Your task to perform on an android device: Look up the best rated gaming chair on Best Buy Image 0: 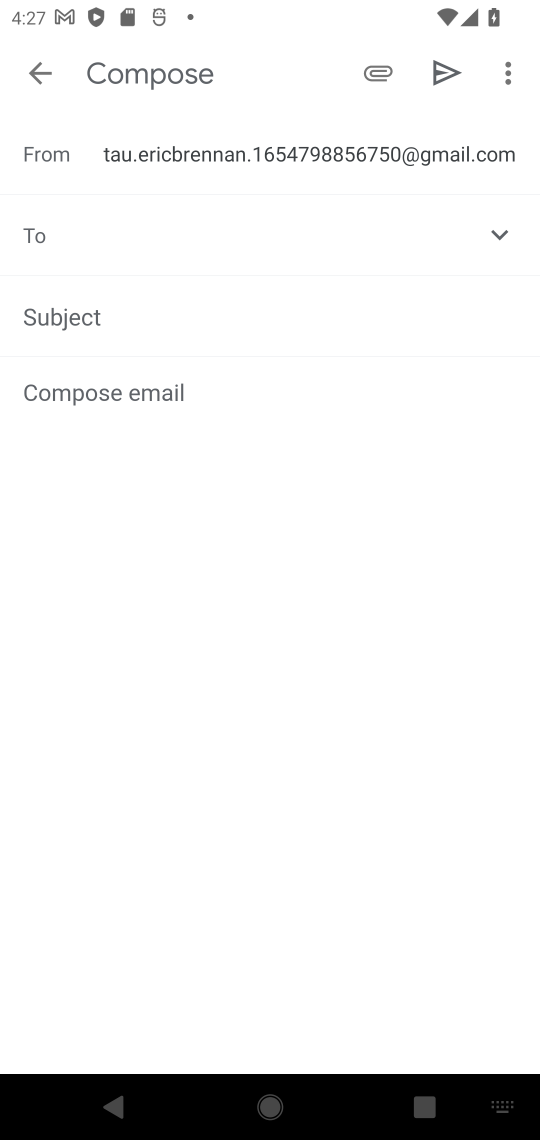
Step 0: press home button
Your task to perform on an android device: Look up the best rated gaming chair on Best Buy Image 1: 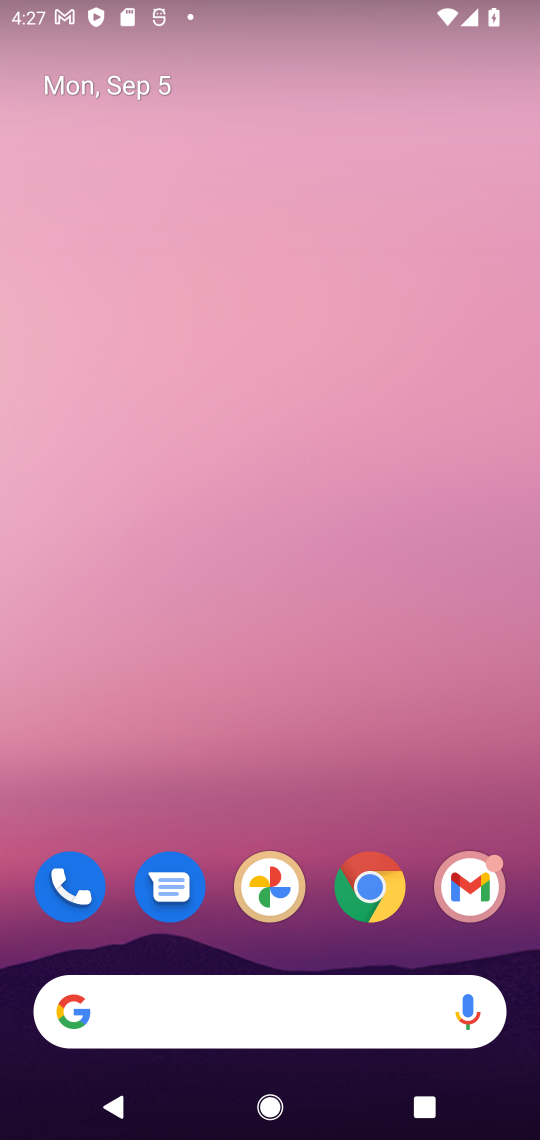
Step 1: drag from (317, 827) to (231, 153)
Your task to perform on an android device: Look up the best rated gaming chair on Best Buy Image 2: 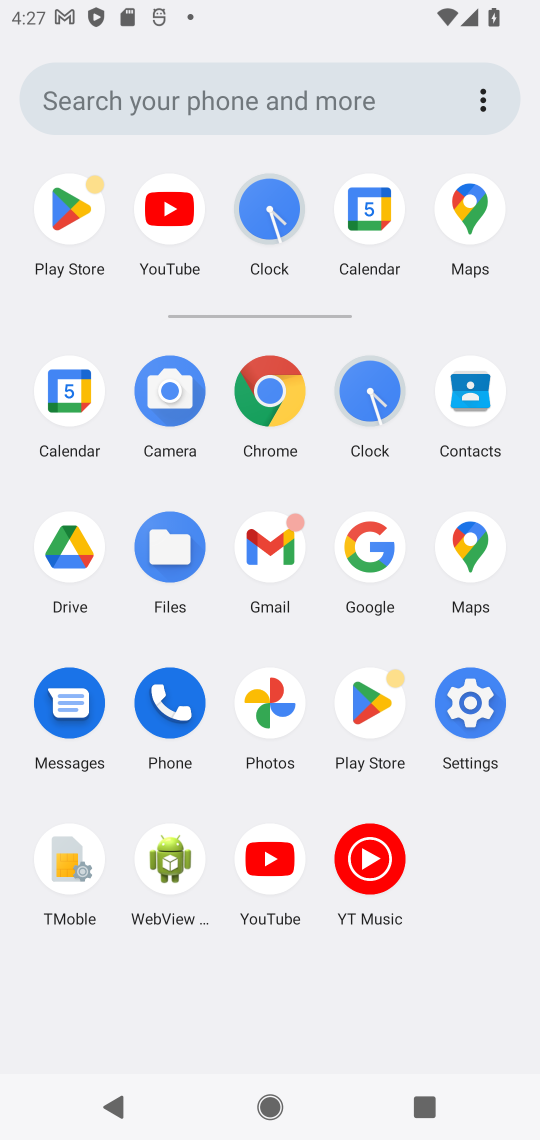
Step 2: click (268, 393)
Your task to perform on an android device: Look up the best rated gaming chair on Best Buy Image 3: 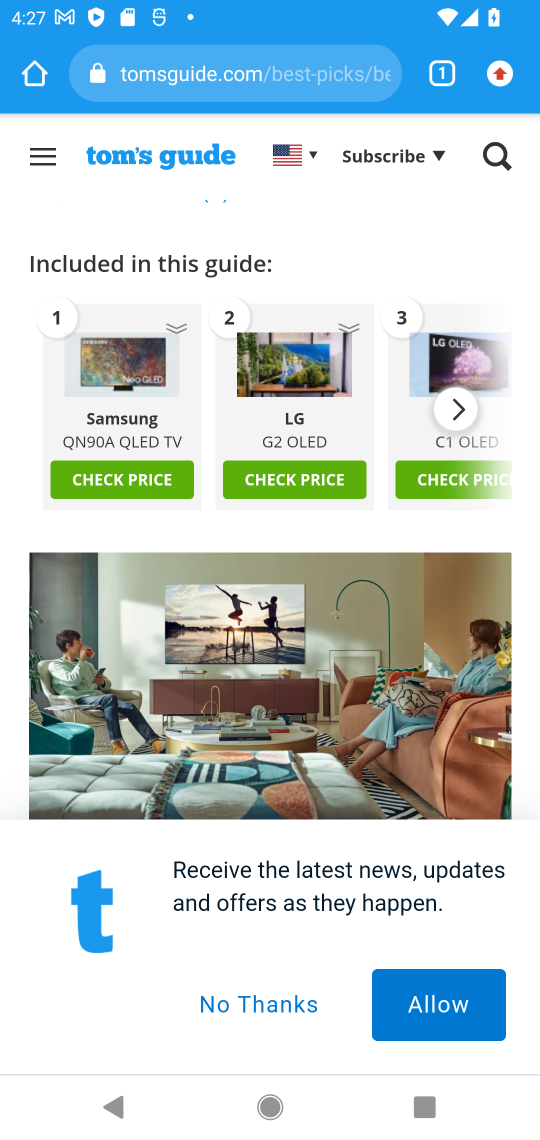
Step 3: drag from (342, 293) to (301, 67)
Your task to perform on an android device: Look up the best rated gaming chair on Best Buy Image 4: 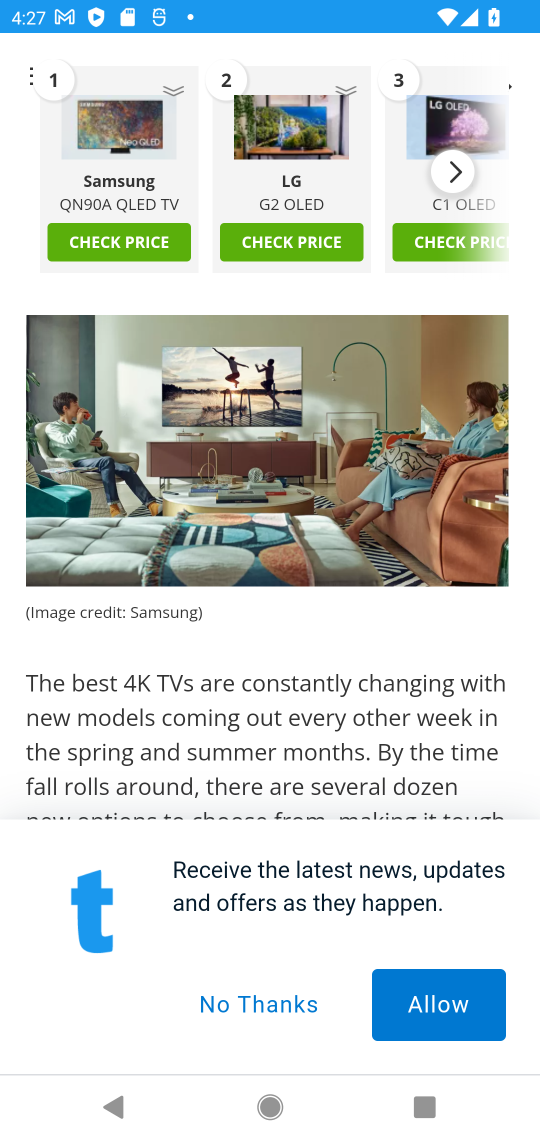
Step 4: drag from (309, 627) to (333, 806)
Your task to perform on an android device: Look up the best rated gaming chair on Best Buy Image 5: 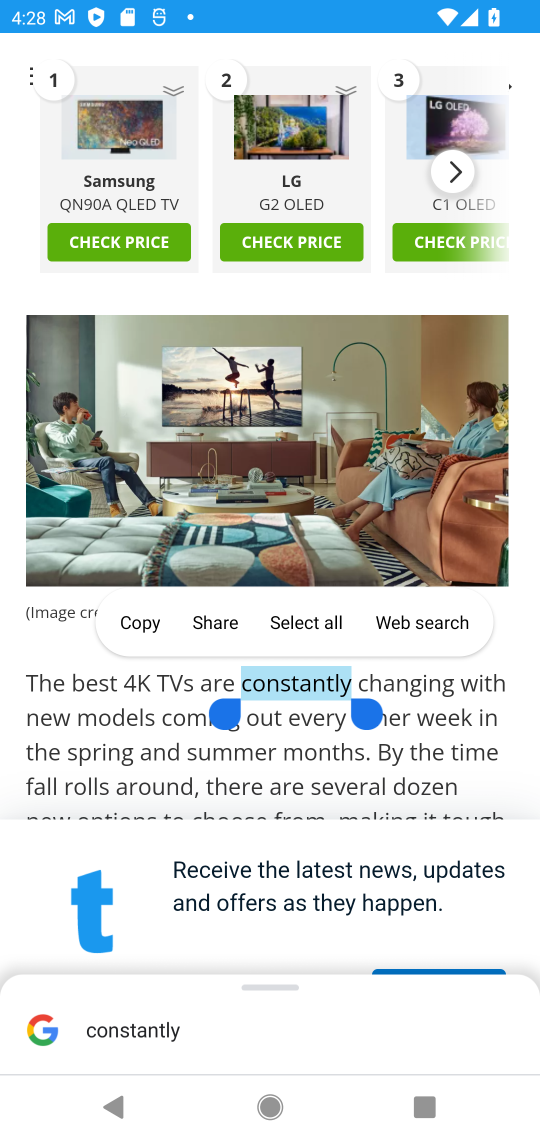
Step 5: click (383, 291)
Your task to perform on an android device: Look up the best rated gaming chair on Best Buy Image 6: 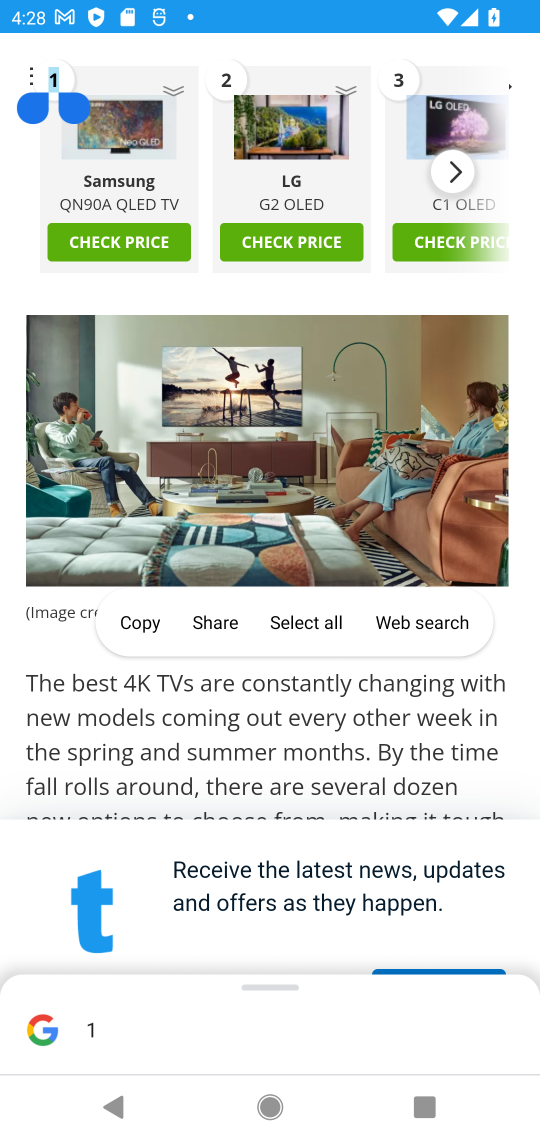
Step 6: drag from (381, 291) to (412, 914)
Your task to perform on an android device: Look up the best rated gaming chair on Best Buy Image 7: 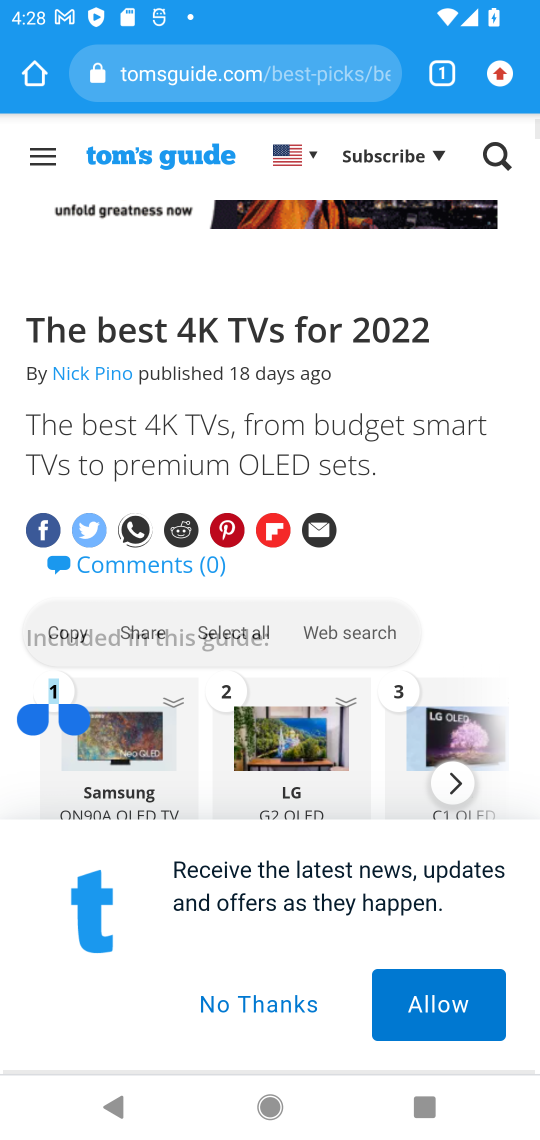
Step 7: click (260, 65)
Your task to perform on an android device: Look up the best rated gaming chair on Best Buy Image 8: 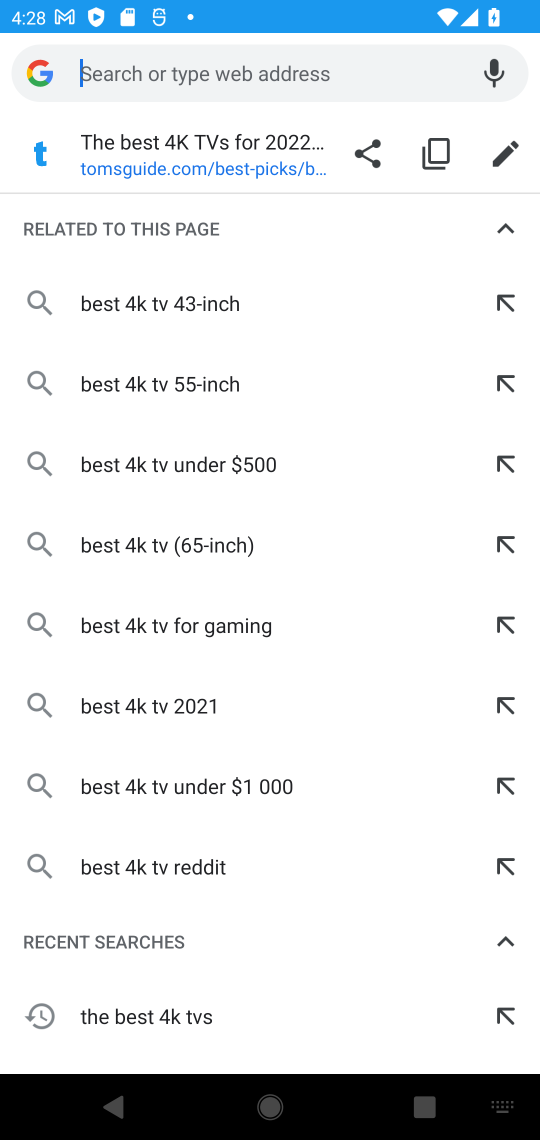
Step 8: type "the best rated gaming chair on Best Buy"
Your task to perform on an android device: Look up the best rated gaming chair on Best Buy Image 9: 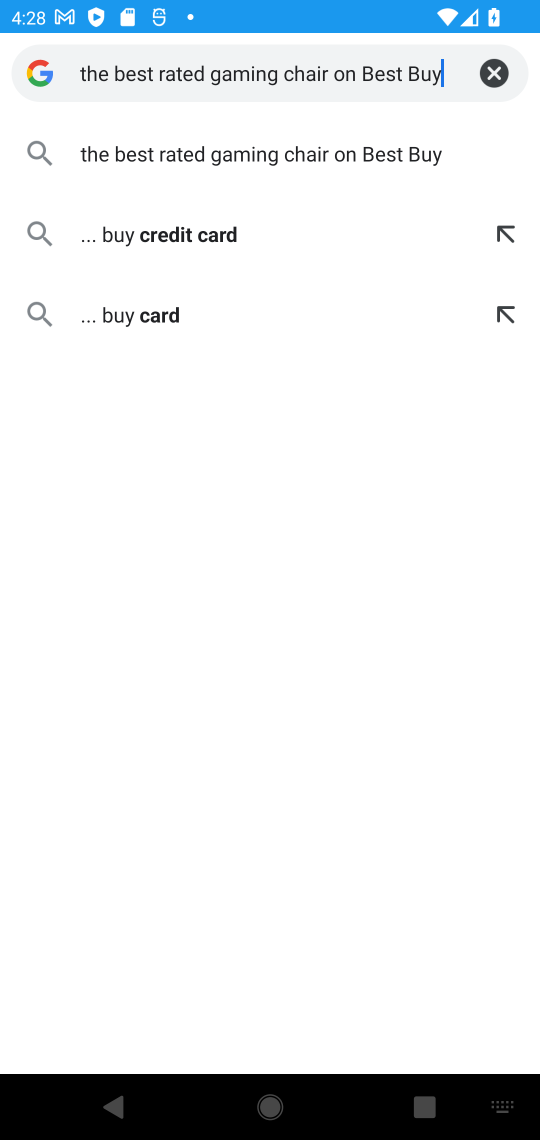
Step 9: press enter
Your task to perform on an android device: Look up the best rated gaming chair on Best Buy Image 10: 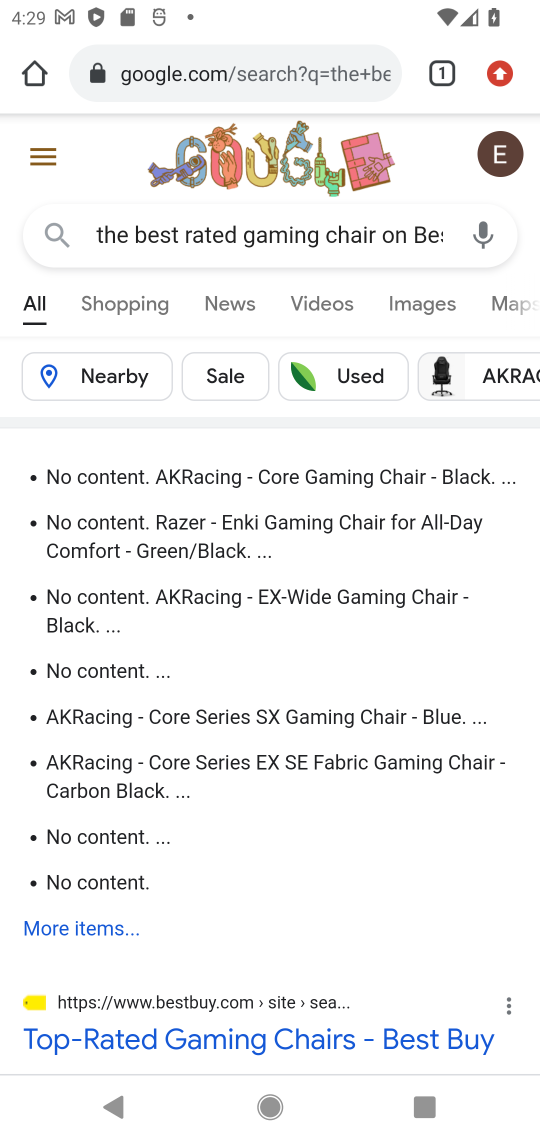
Step 10: click (62, 928)
Your task to perform on an android device: Look up the best rated gaming chair on Best Buy Image 11: 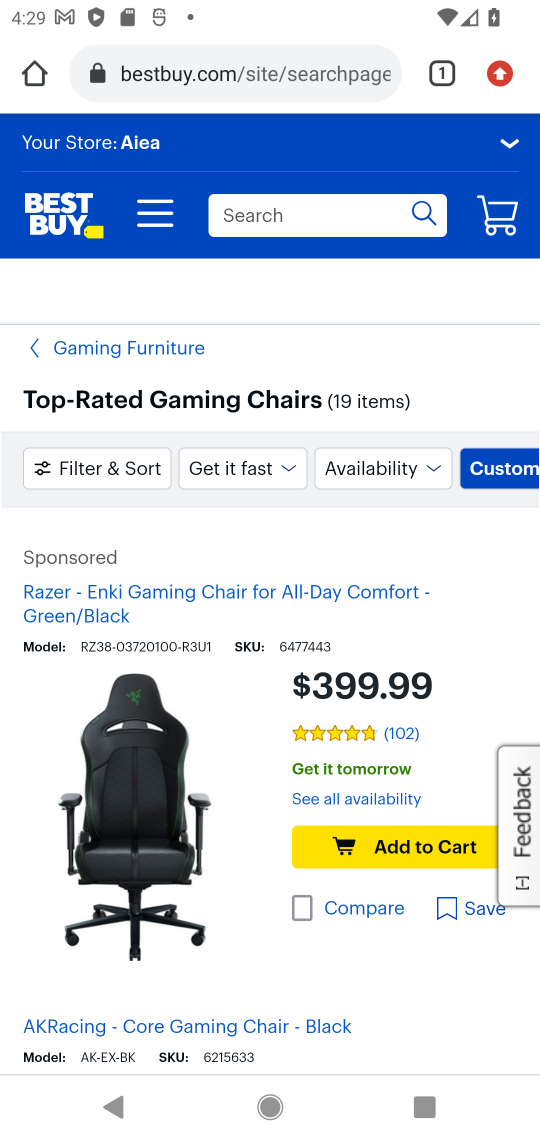
Step 11: task complete